Your task to perform on an android device: Go to accessibility settings Image 0: 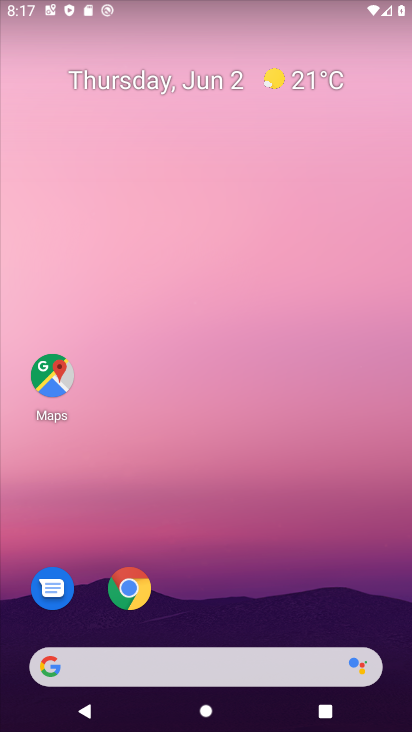
Step 0: drag from (257, 657) to (253, 204)
Your task to perform on an android device: Go to accessibility settings Image 1: 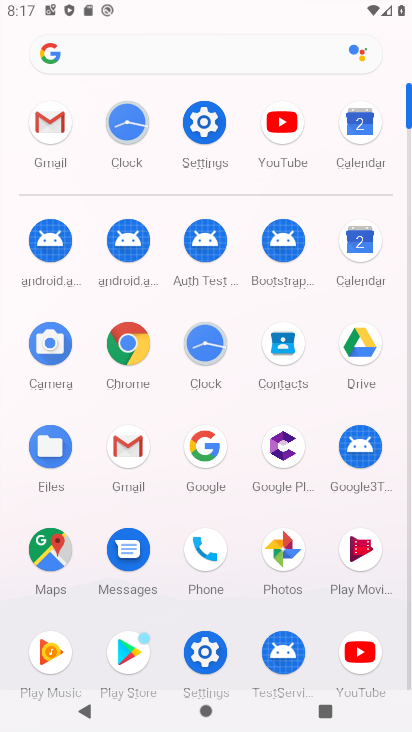
Step 1: click (197, 140)
Your task to perform on an android device: Go to accessibility settings Image 2: 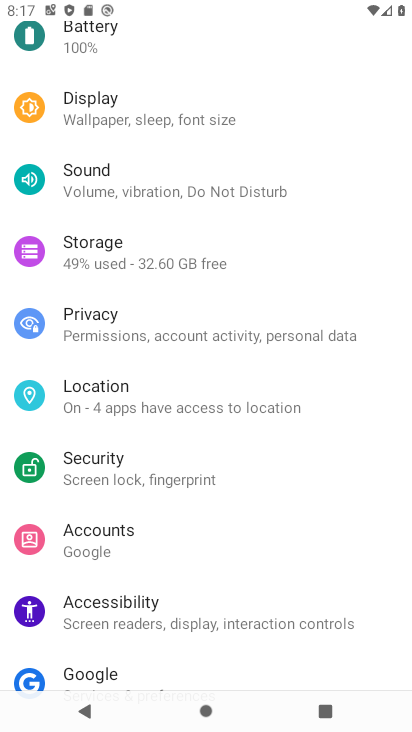
Step 2: click (133, 601)
Your task to perform on an android device: Go to accessibility settings Image 3: 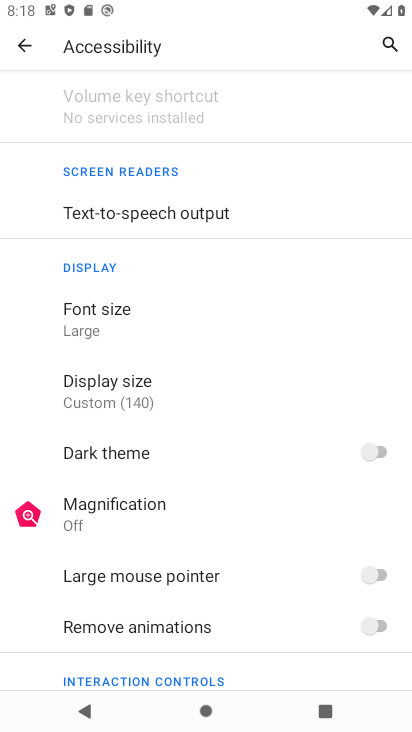
Step 3: task complete